Your task to perform on an android device: Go to internet settings Image 0: 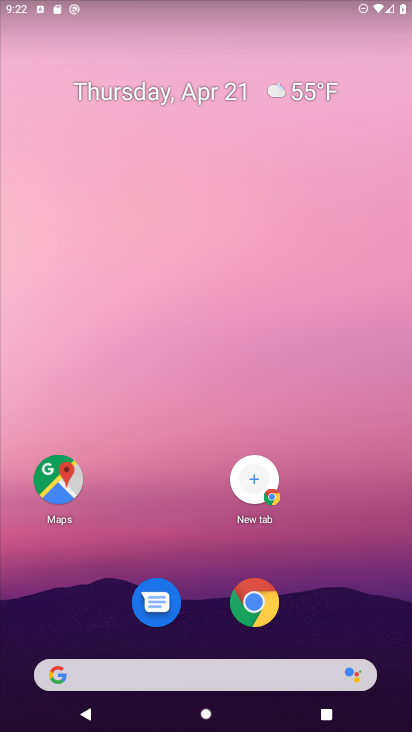
Step 0: drag from (201, 576) to (149, 110)
Your task to perform on an android device: Go to internet settings Image 1: 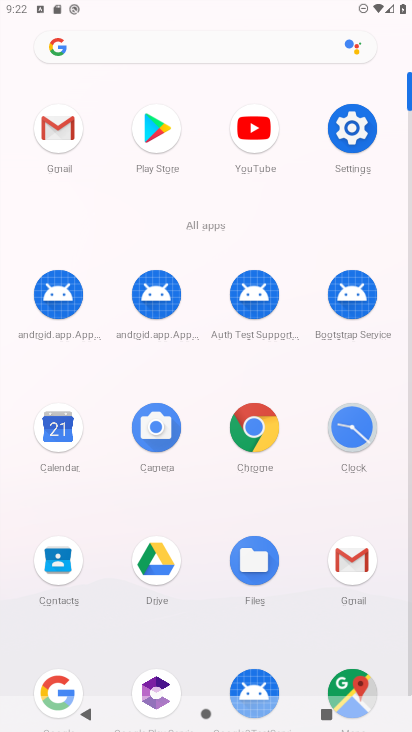
Step 1: click (356, 125)
Your task to perform on an android device: Go to internet settings Image 2: 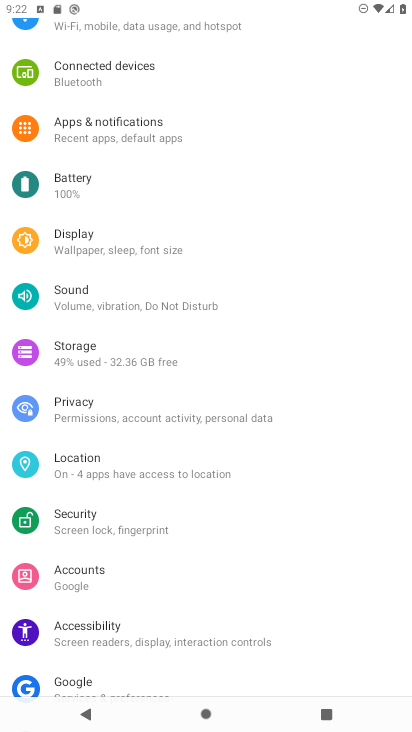
Step 2: drag from (140, 94) to (208, 586)
Your task to perform on an android device: Go to internet settings Image 3: 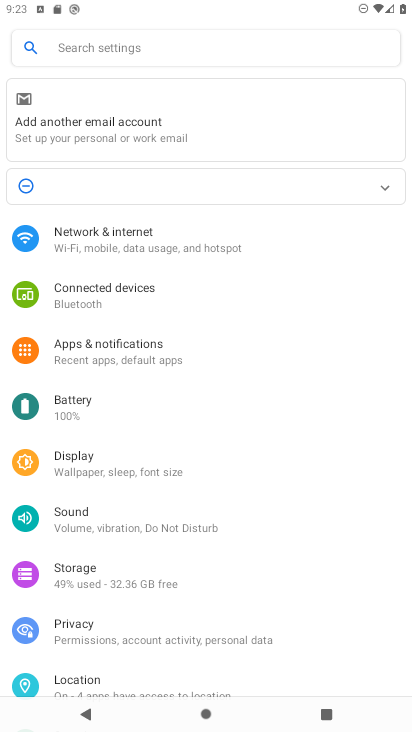
Step 3: click (112, 221)
Your task to perform on an android device: Go to internet settings Image 4: 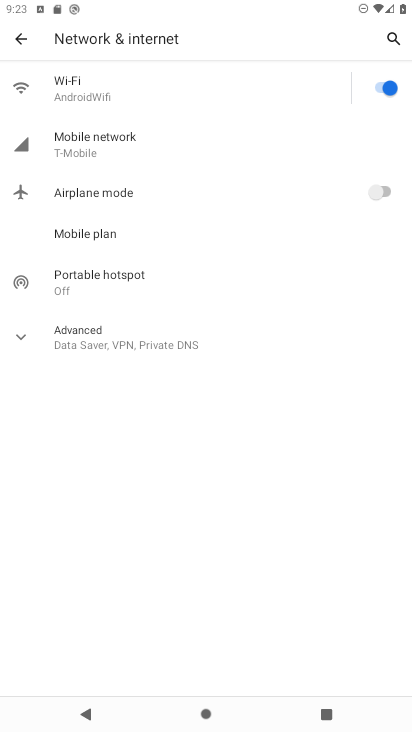
Step 4: task complete